Your task to perform on an android device: open wifi settings Image 0: 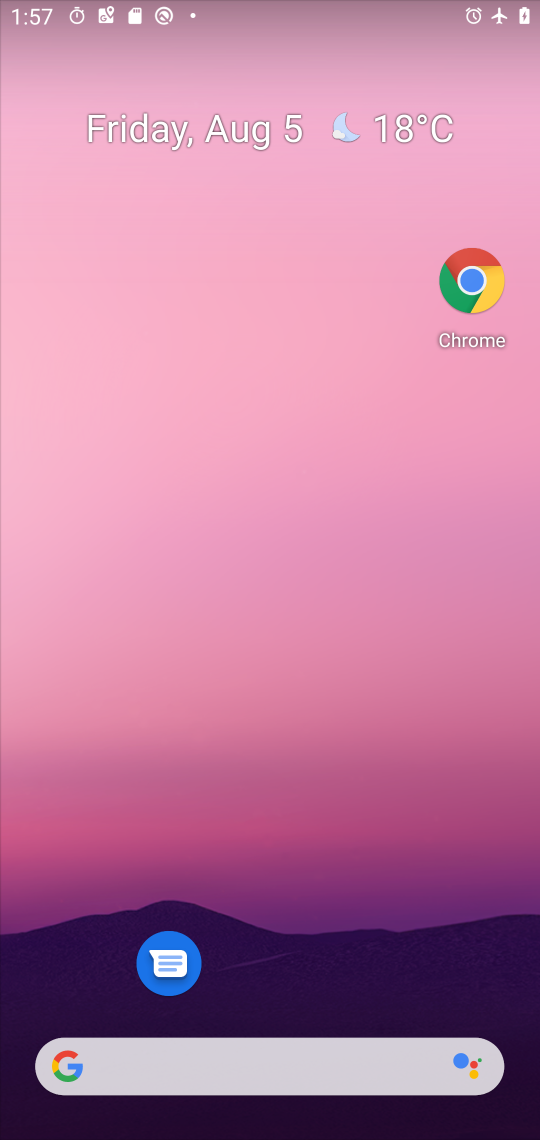
Step 0: drag from (341, 909) to (364, 19)
Your task to perform on an android device: open wifi settings Image 1: 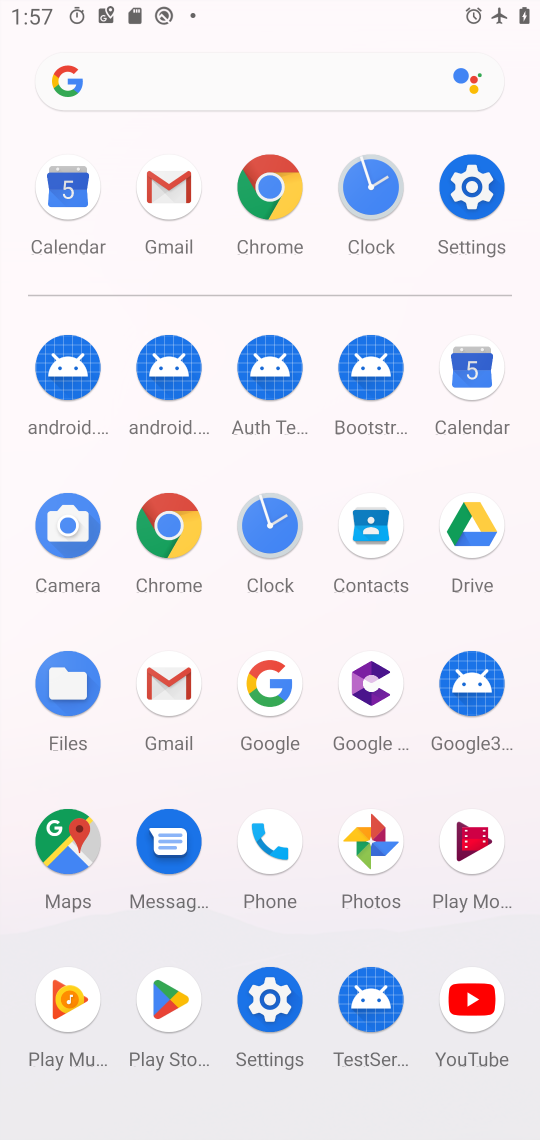
Step 1: click (472, 175)
Your task to perform on an android device: open wifi settings Image 2: 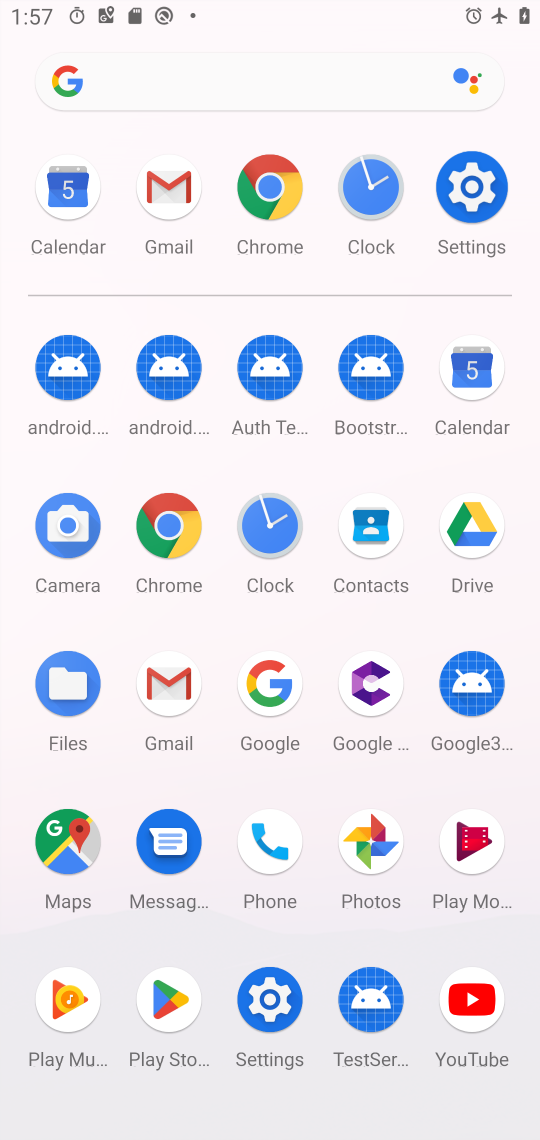
Step 2: click (471, 173)
Your task to perform on an android device: open wifi settings Image 3: 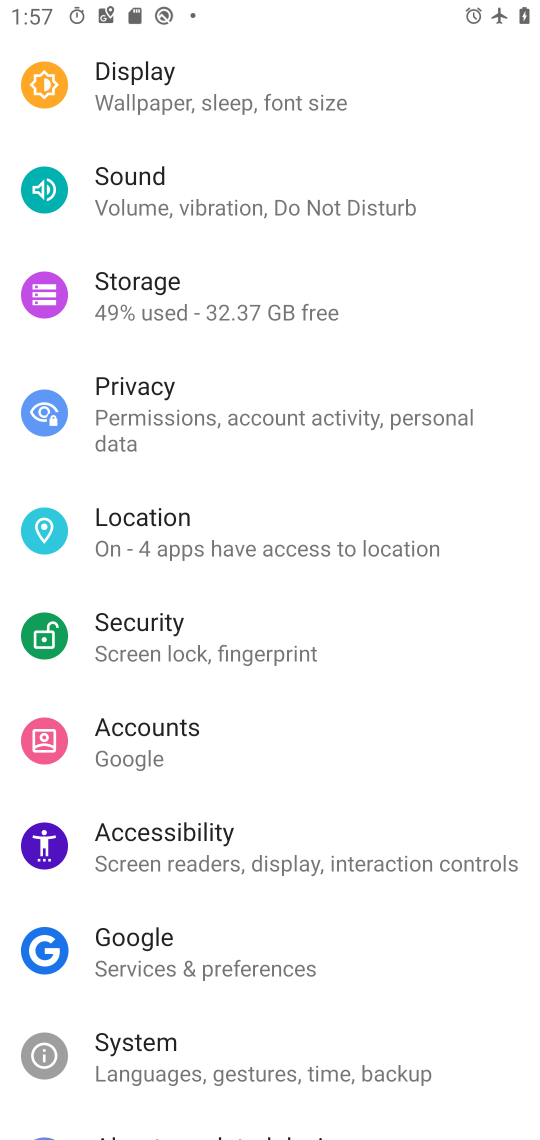
Step 3: drag from (240, 47) to (164, 942)
Your task to perform on an android device: open wifi settings Image 4: 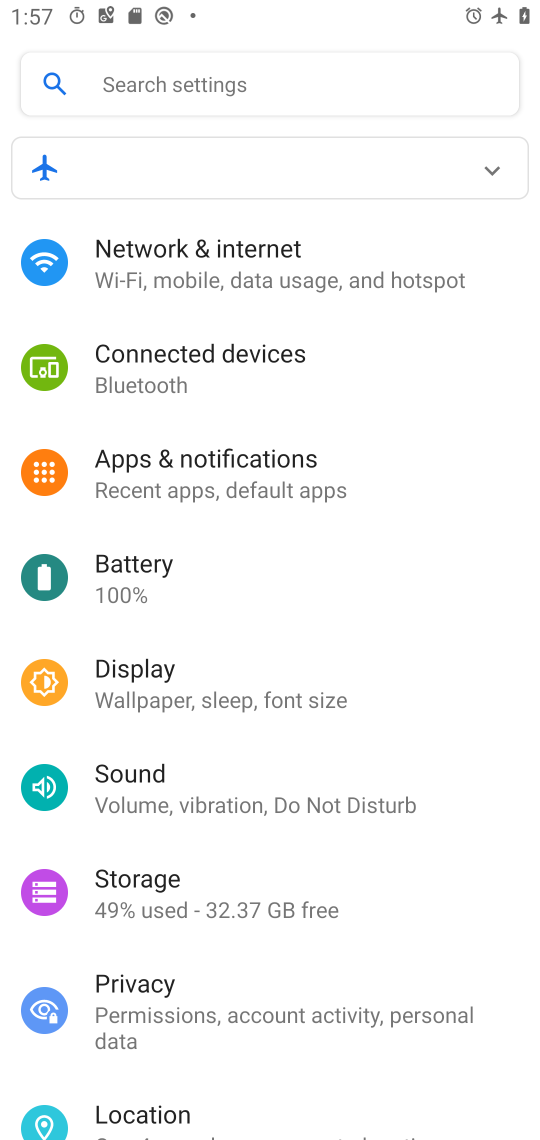
Step 4: click (171, 259)
Your task to perform on an android device: open wifi settings Image 5: 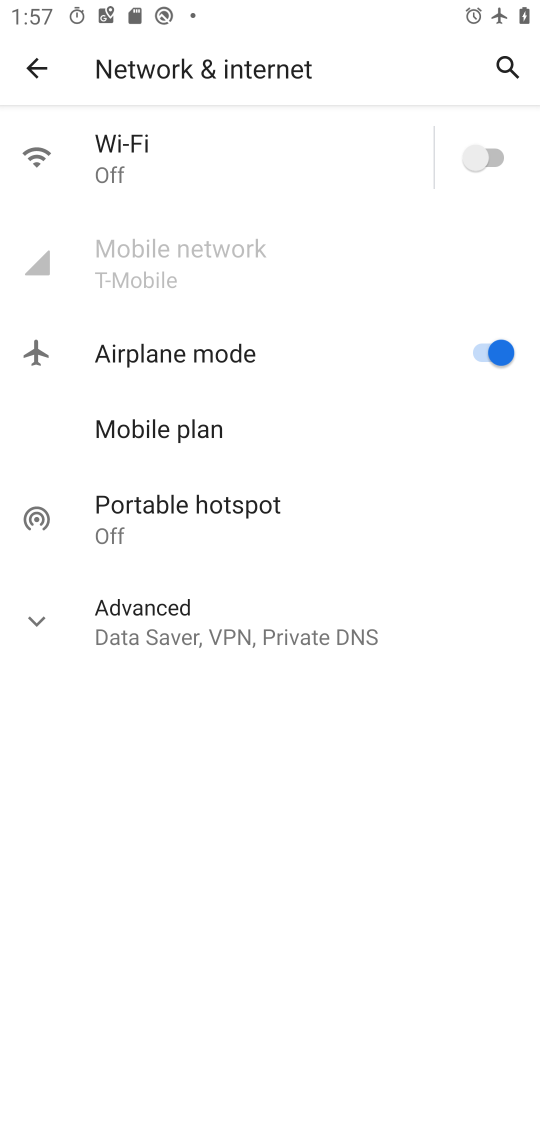
Step 5: click (170, 207)
Your task to perform on an android device: open wifi settings Image 6: 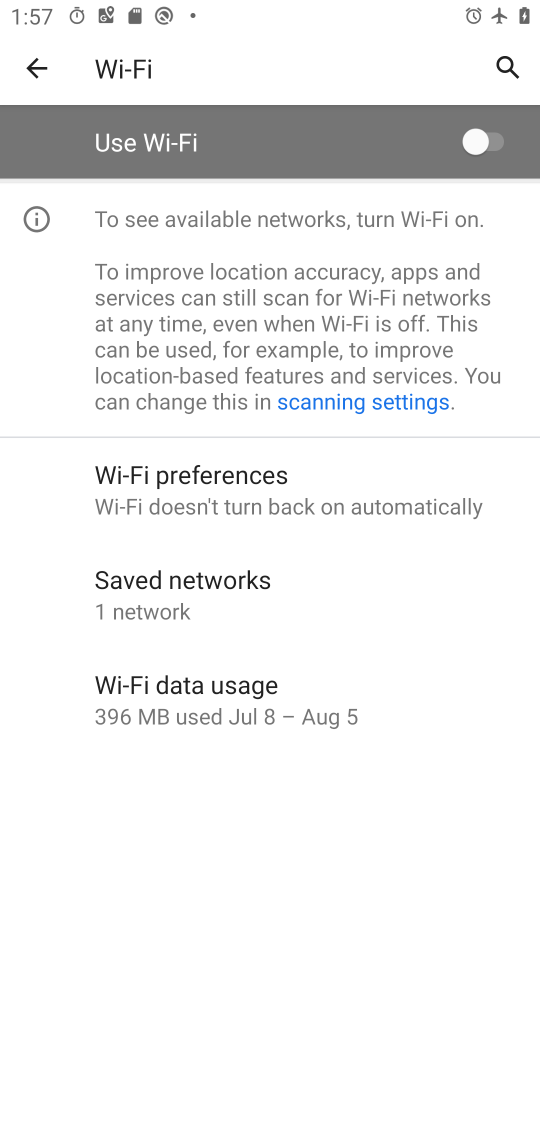
Step 6: task complete